Your task to perform on an android device: install app "Google Maps" Image 0: 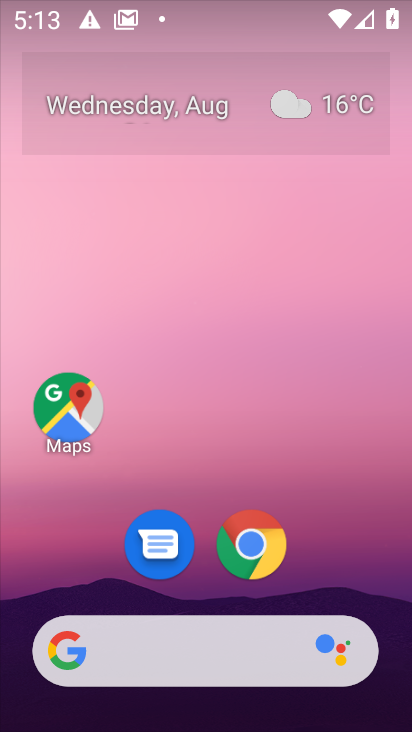
Step 0: drag from (210, 661) to (266, 177)
Your task to perform on an android device: install app "Google Maps" Image 1: 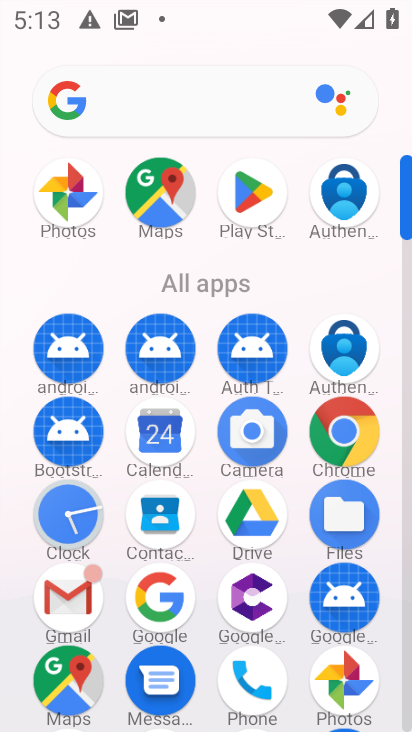
Step 1: click (250, 193)
Your task to perform on an android device: install app "Google Maps" Image 2: 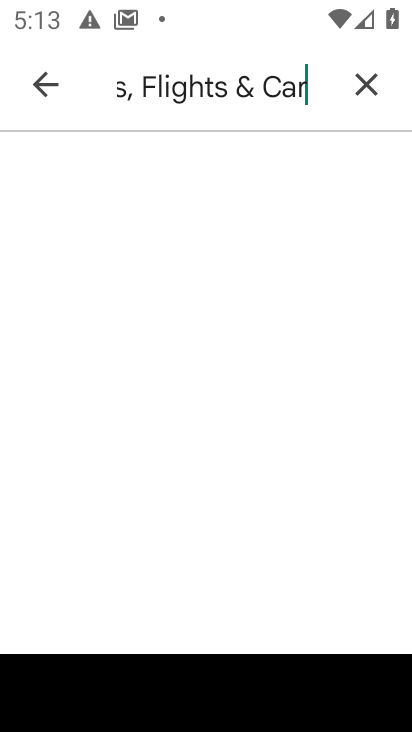
Step 2: press back button
Your task to perform on an android device: install app "Google Maps" Image 3: 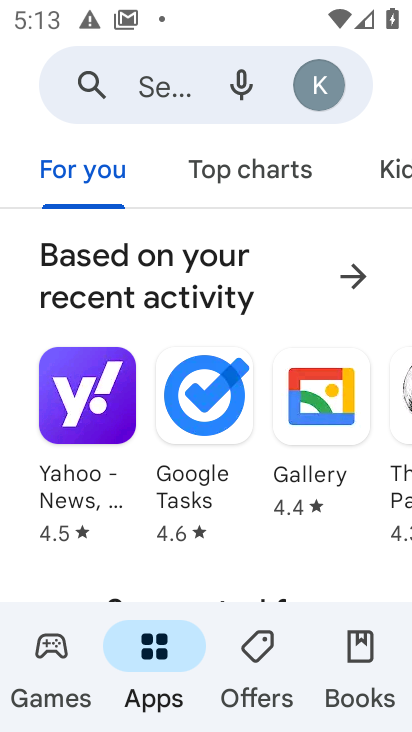
Step 3: click (186, 68)
Your task to perform on an android device: install app "Google Maps" Image 4: 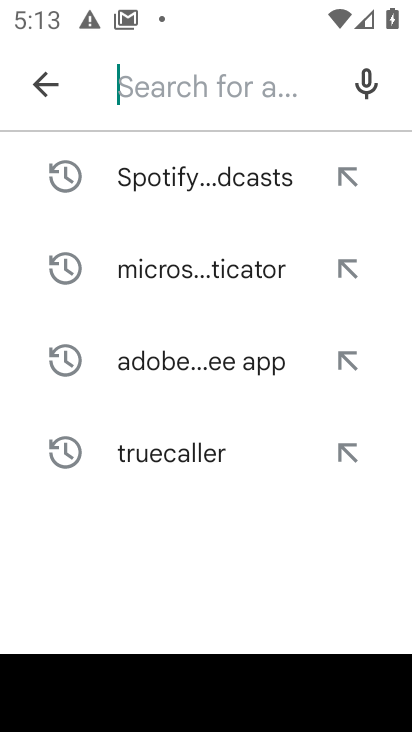
Step 4: type "Google Maps"
Your task to perform on an android device: install app "Google Maps" Image 5: 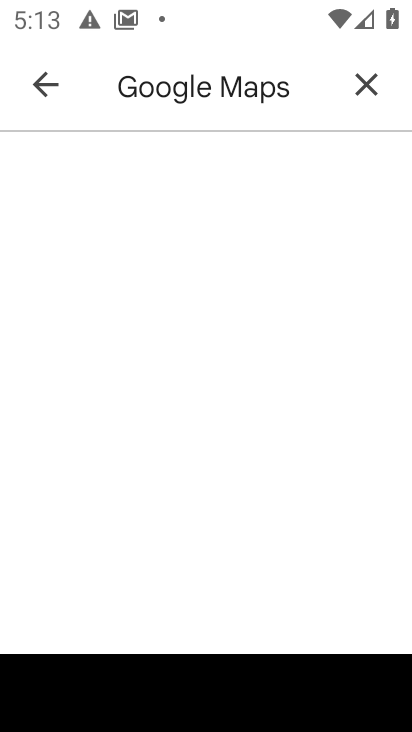
Step 5: click (35, 83)
Your task to perform on an android device: install app "Google Maps" Image 6: 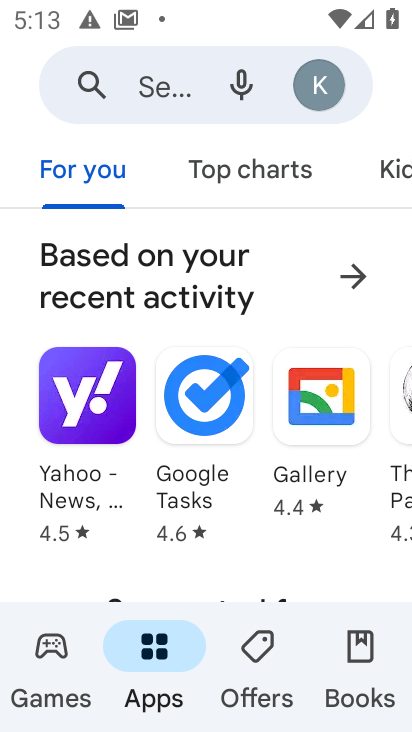
Step 6: press home button
Your task to perform on an android device: install app "Google Maps" Image 7: 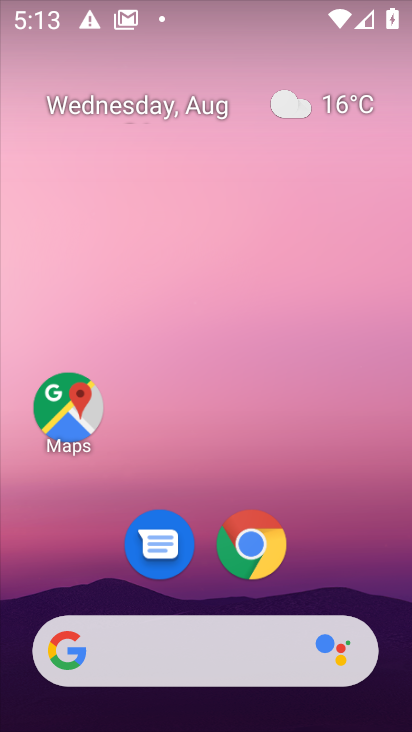
Step 7: drag from (228, 664) to (258, 116)
Your task to perform on an android device: install app "Google Maps" Image 8: 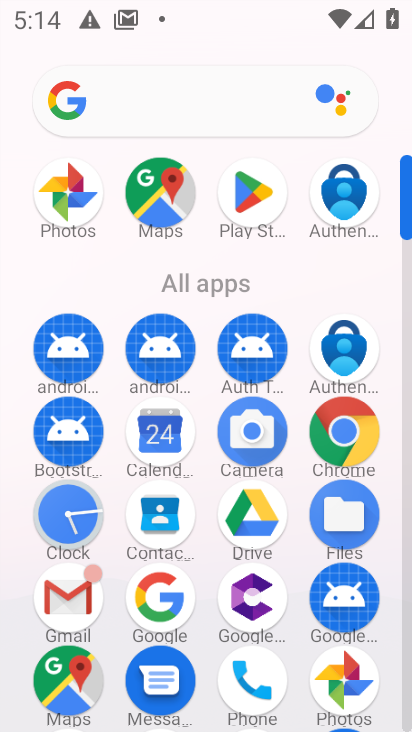
Step 8: click (256, 196)
Your task to perform on an android device: install app "Google Maps" Image 9: 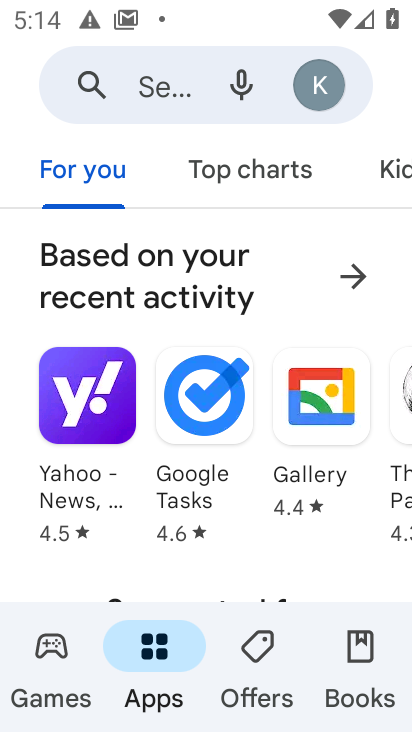
Step 9: click (179, 91)
Your task to perform on an android device: install app "Google Maps" Image 10: 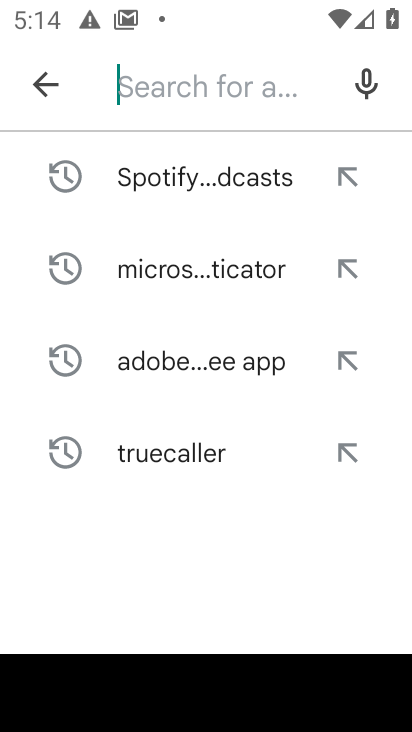
Step 10: type "Google Maps"
Your task to perform on an android device: install app "Google Maps" Image 11: 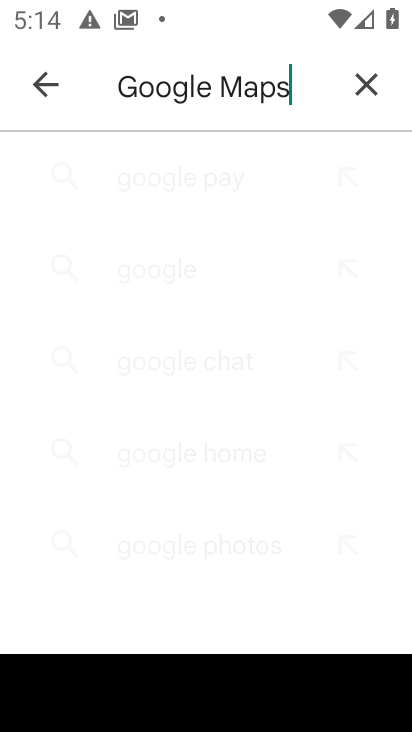
Step 11: type ""
Your task to perform on an android device: install app "Google Maps" Image 12: 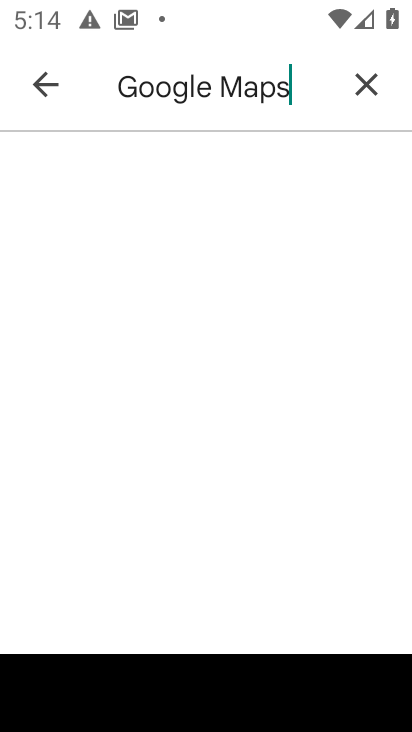
Step 12: task complete